Your task to perform on an android device: turn off priority inbox in the gmail app Image 0: 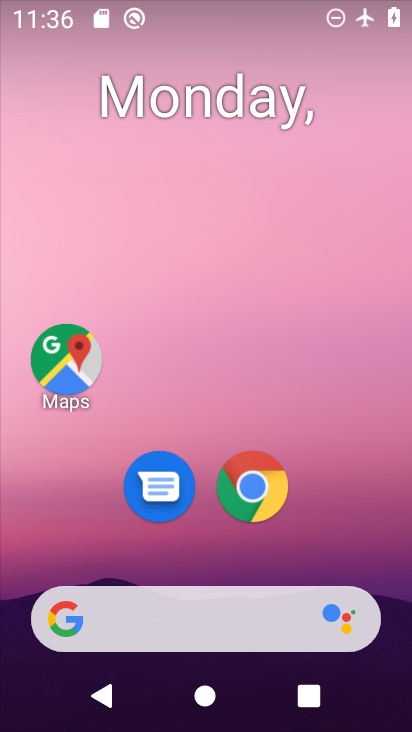
Step 0: press home button
Your task to perform on an android device: turn off priority inbox in the gmail app Image 1: 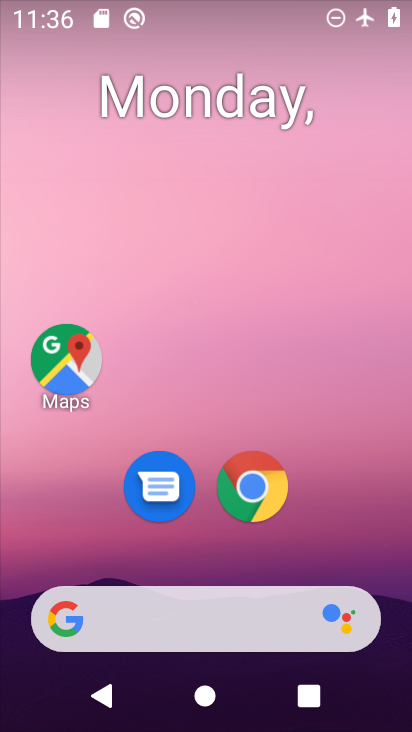
Step 1: drag from (23, 465) to (181, 165)
Your task to perform on an android device: turn off priority inbox in the gmail app Image 2: 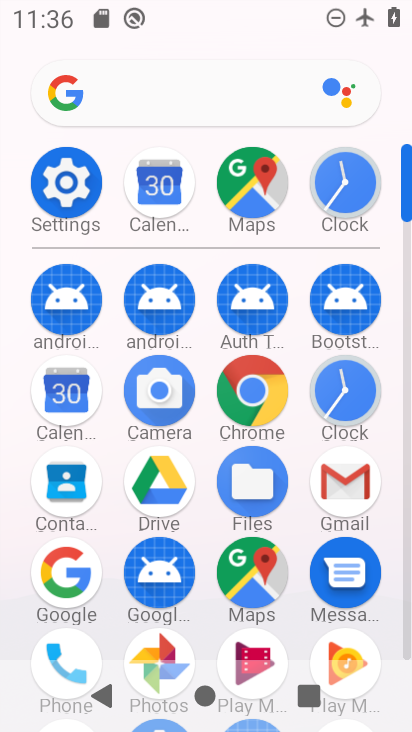
Step 2: click (354, 494)
Your task to perform on an android device: turn off priority inbox in the gmail app Image 3: 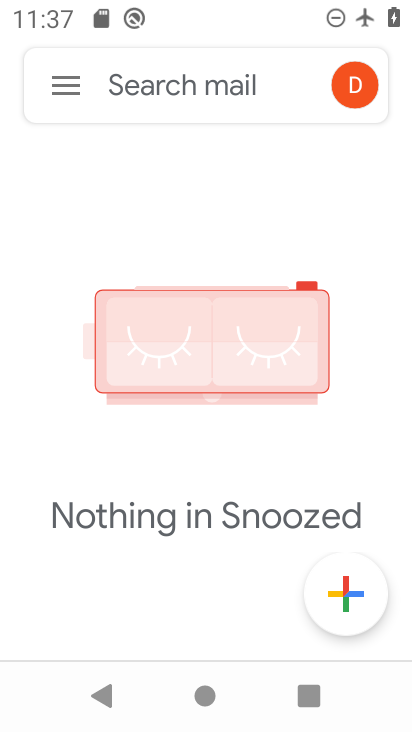
Step 3: click (60, 81)
Your task to perform on an android device: turn off priority inbox in the gmail app Image 4: 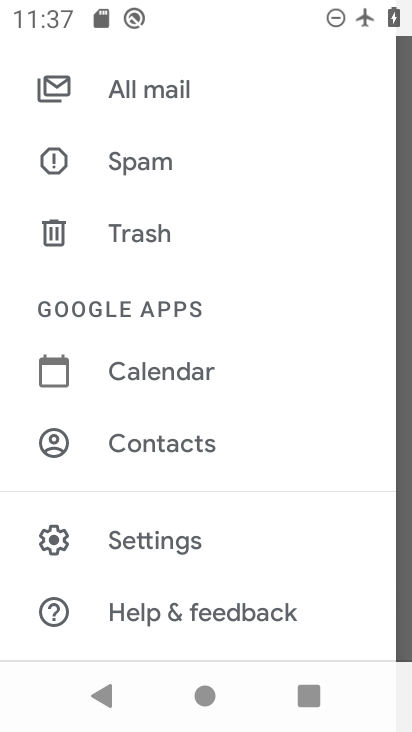
Step 4: click (191, 541)
Your task to perform on an android device: turn off priority inbox in the gmail app Image 5: 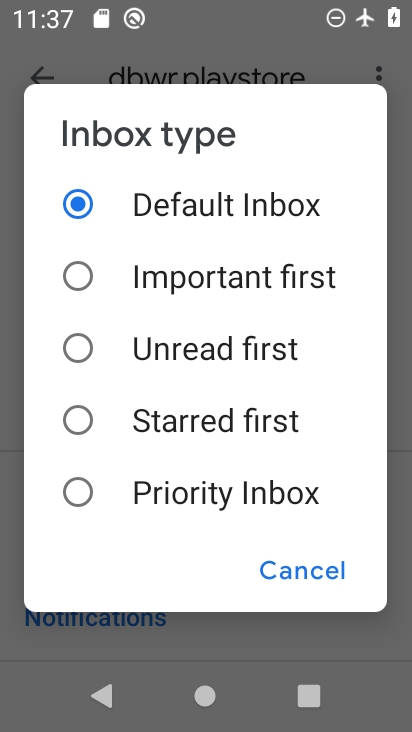
Step 5: task complete